Your task to perform on an android device: Is it going to rain this weekend? Image 0: 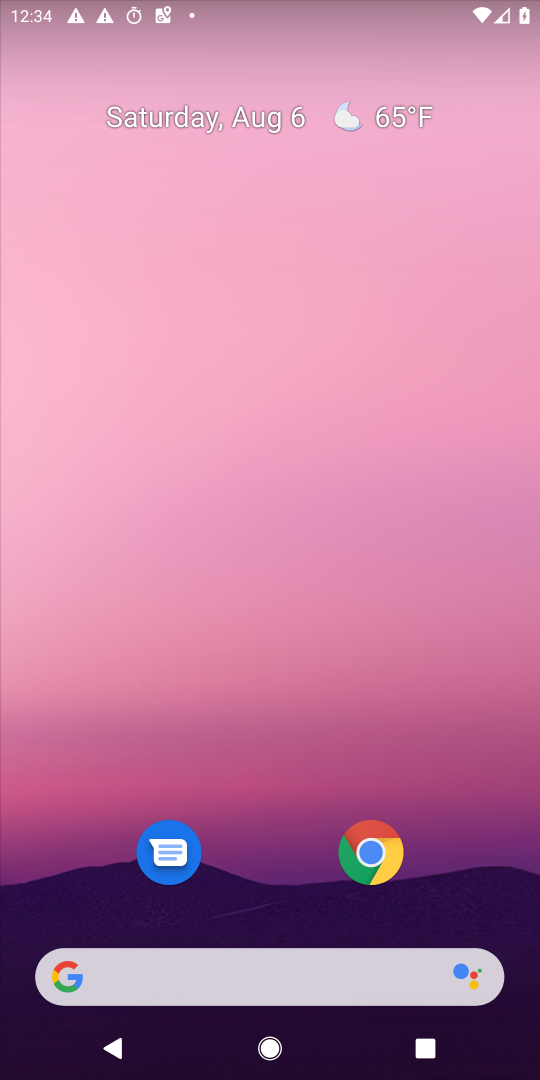
Step 0: drag from (393, 952) to (280, 1)
Your task to perform on an android device: Is it going to rain this weekend? Image 1: 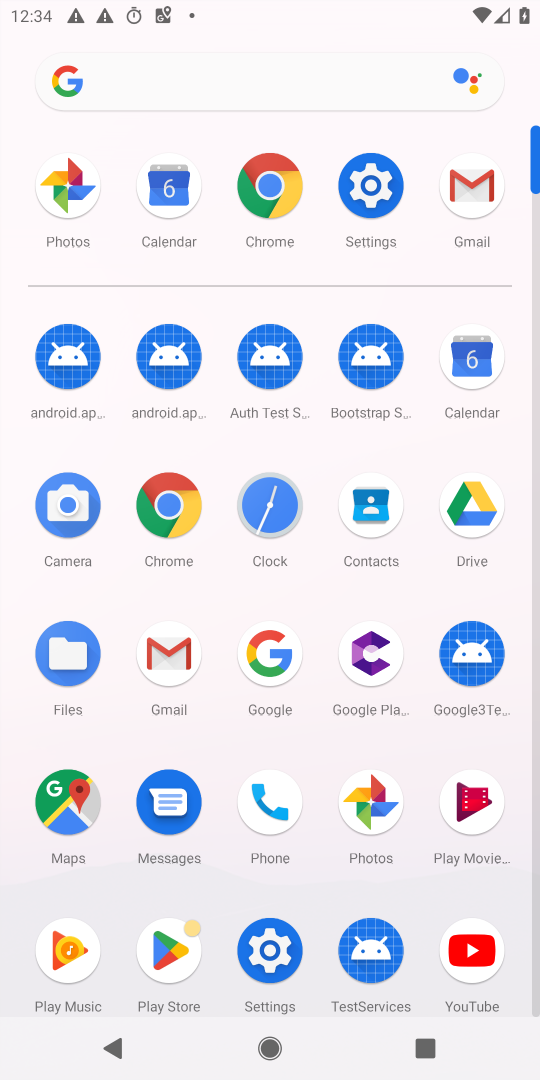
Step 1: click (222, 83)
Your task to perform on an android device: Is it going to rain this weekend? Image 2: 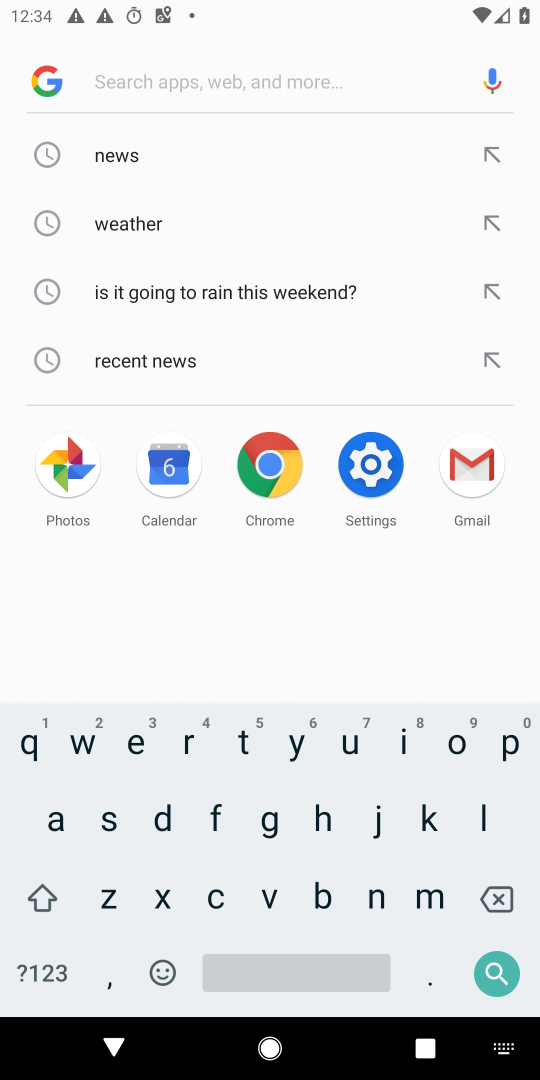
Step 2: click (254, 288)
Your task to perform on an android device: Is it going to rain this weekend? Image 3: 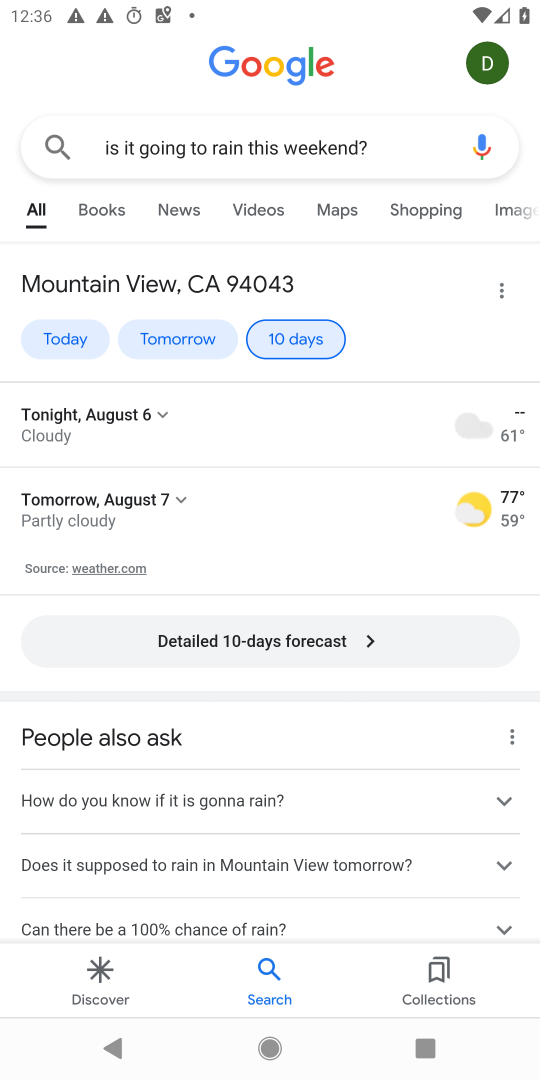
Step 3: task complete